Your task to perform on an android device: Open sound settings Image 0: 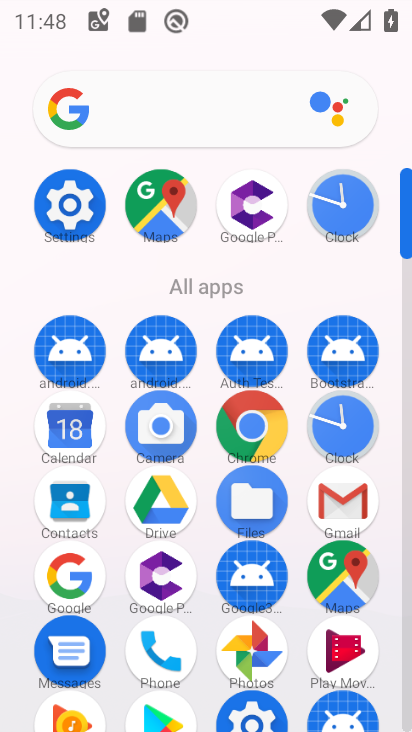
Step 0: click (81, 196)
Your task to perform on an android device: Open sound settings Image 1: 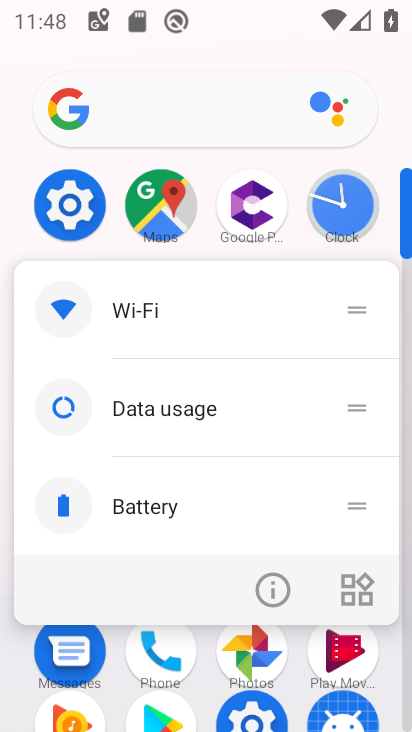
Step 1: click (81, 199)
Your task to perform on an android device: Open sound settings Image 2: 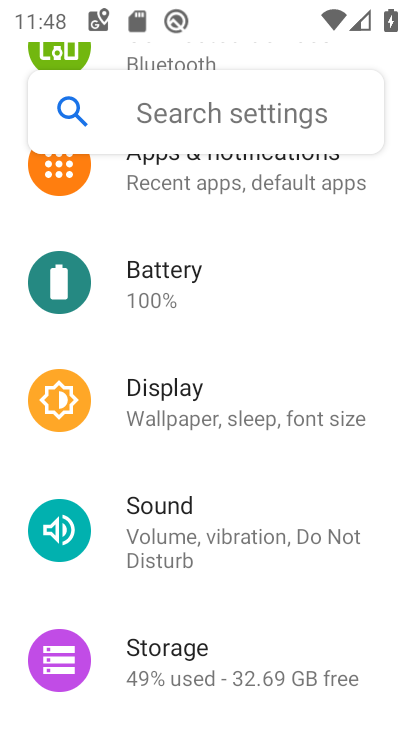
Step 2: click (163, 521)
Your task to perform on an android device: Open sound settings Image 3: 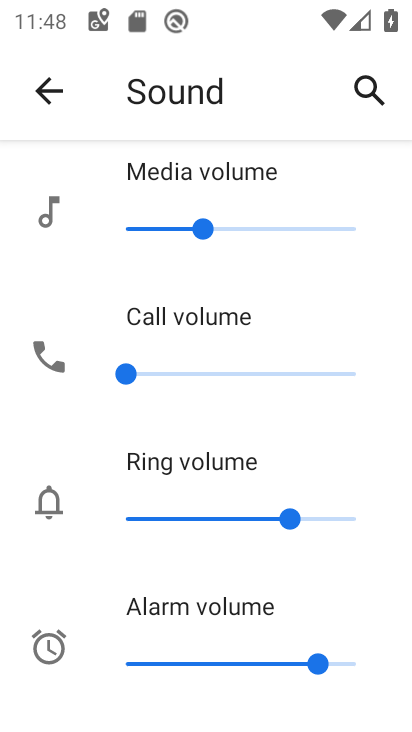
Step 3: task complete